Your task to perform on an android device: Open battery settings Image 0: 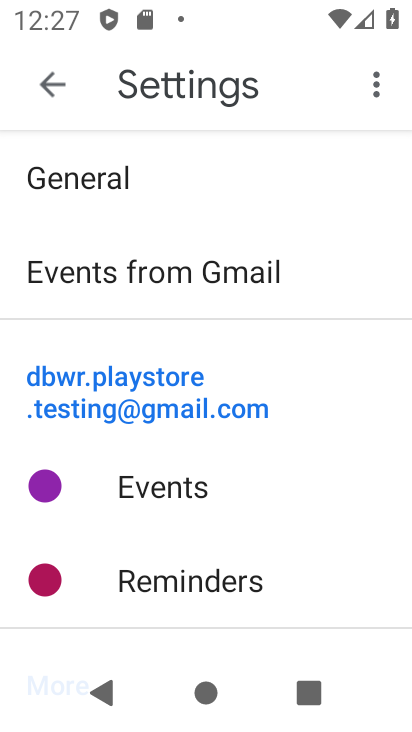
Step 0: press home button
Your task to perform on an android device: Open battery settings Image 1: 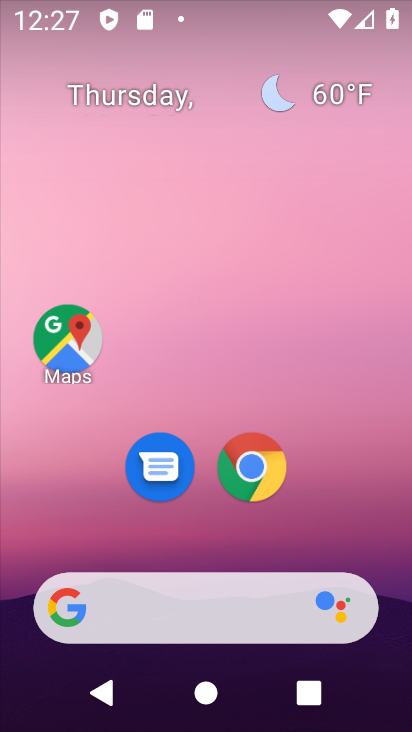
Step 1: drag from (228, 598) to (390, 195)
Your task to perform on an android device: Open battery settings Image 2: 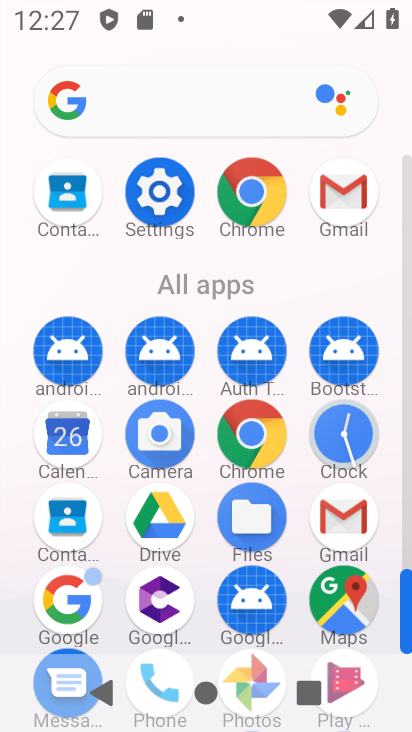
Step 2: click (157, 217)
Your task to perform on an android device: Open battery settings Image 3: 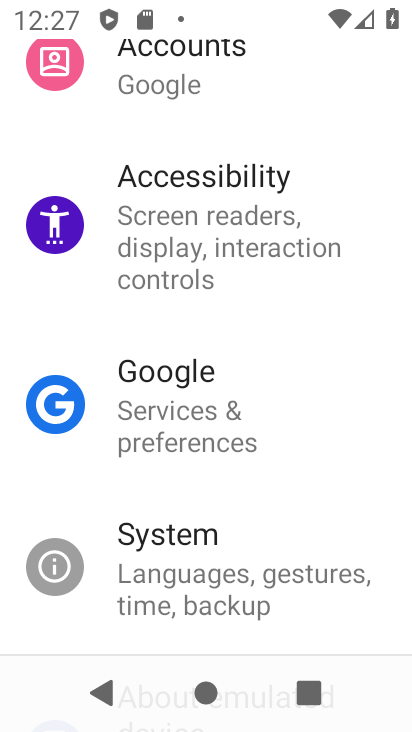
Step 3: drag from (213, 427) to (224, 731)
Your task to perform on an android device: Open battery settings Image 4: 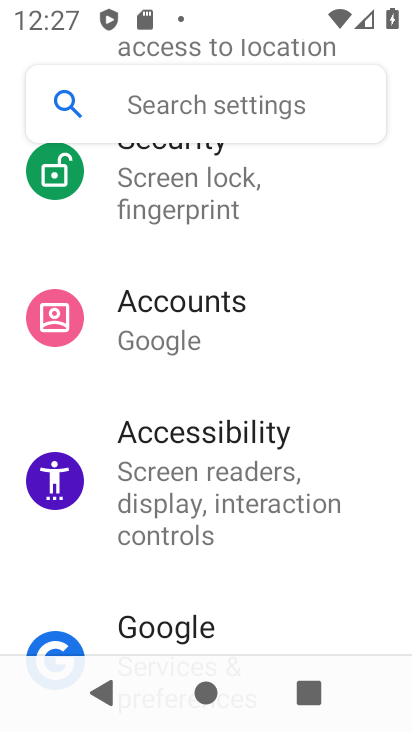
Step 4: drag from (251, 507) to (248, 731)
Your task to perform on an android device: Open battery settings Image 5: 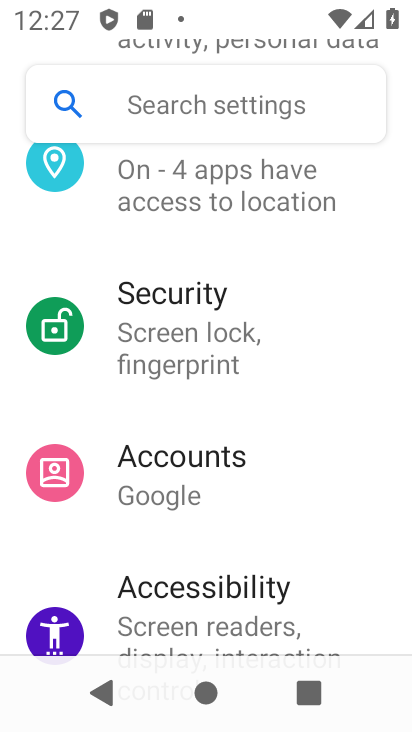
Step 5: drag from (239, 345) to (241, 727)
Your task to perform on an android device: Open battery settings Image 6: 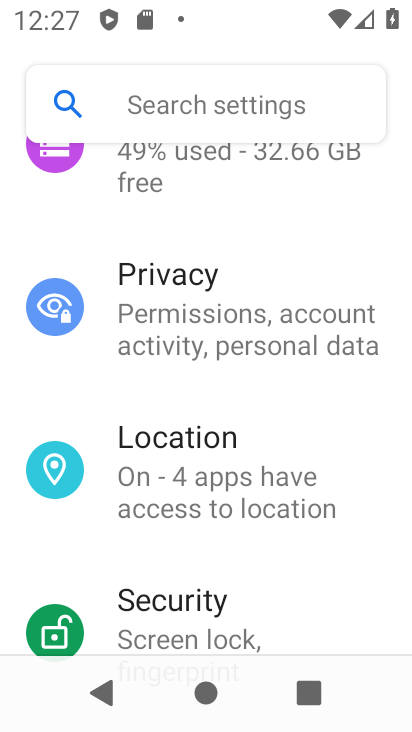
Step 6: drag from (249, 291) to (277, 688)
Your task to perform on an android device: Open battery settings Image 7: 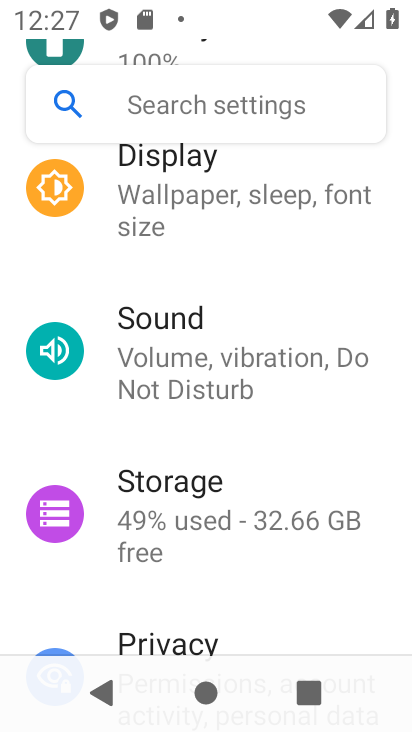
Step 7: drag from (270, 314) to (282, 689)
Your task to perform on an android device: Open battery settings Image 8: 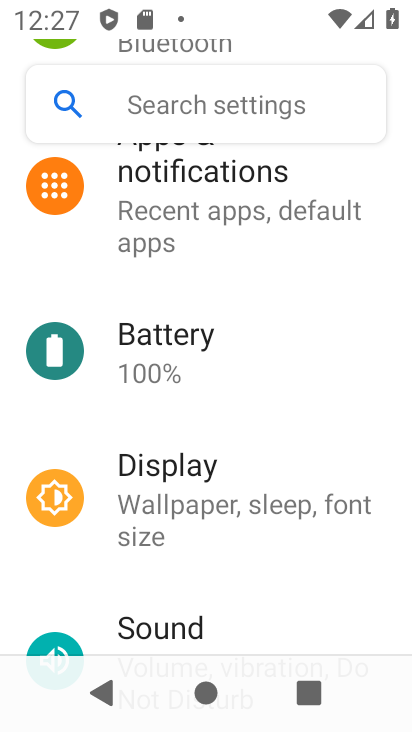
Step 8: drag from (208, 248) to (217, 361)
Your task to perform on an android device: Open battery settings Image 9: 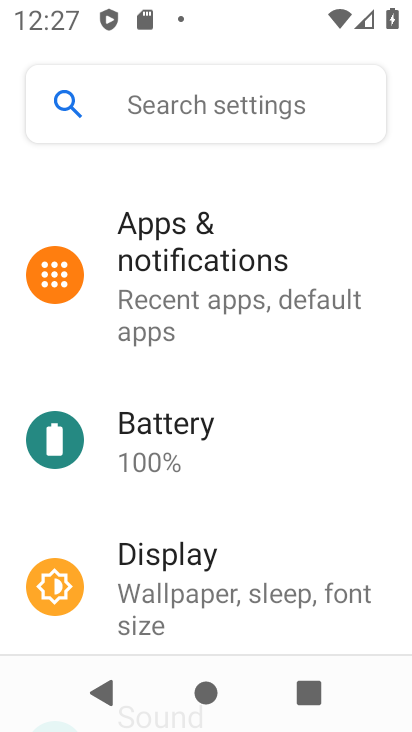
Step 9: click (205, 436)
Your task to perform on an android device: Open battery settings Image 10: 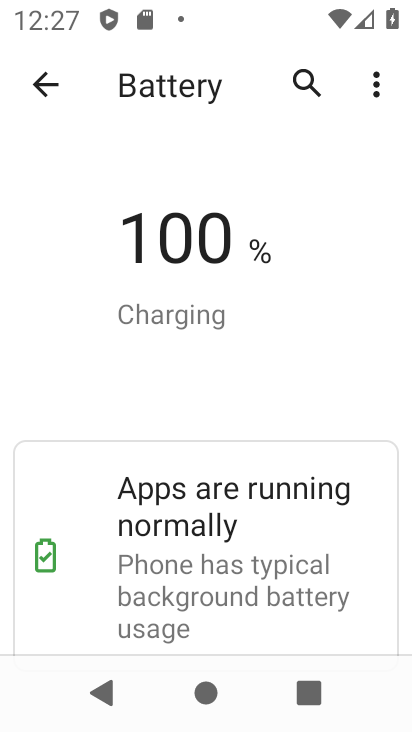
Step 10: task complete